Your task to perform on an android device: Turn off the flashlight Image 0: 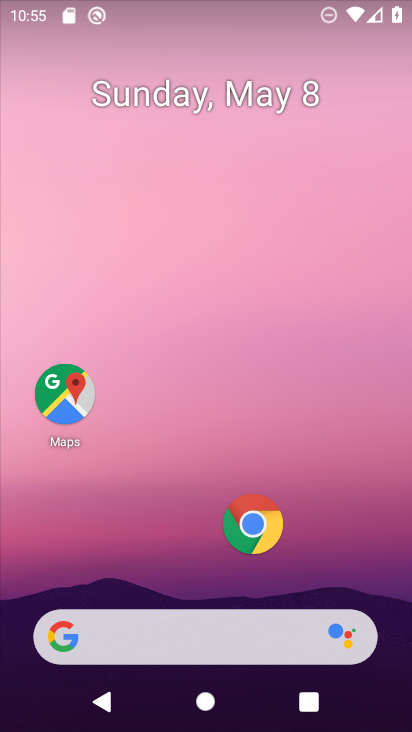
Step 0: drag from (196, 413) to (197, 0)
Your task to perform on an android device: Turn off the flashlight Image 1: 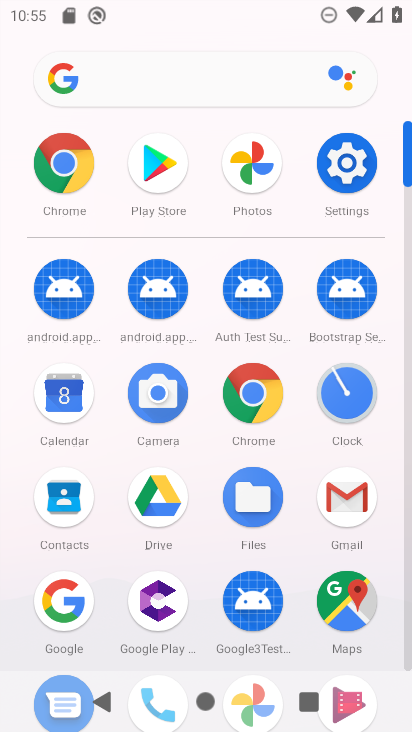
Step 1: click (345, 165)
Your task to perform on an android device: Turn off the flashlight Image 2: 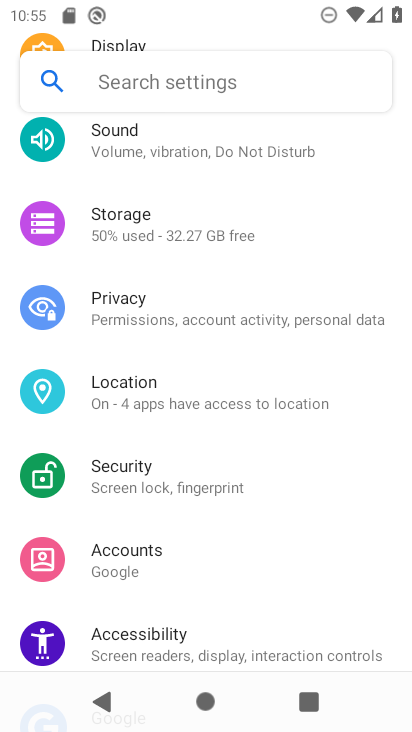
Step 2: click (273, 78)
Your task to perform on an android device: Turn off the flashlight Image 3: 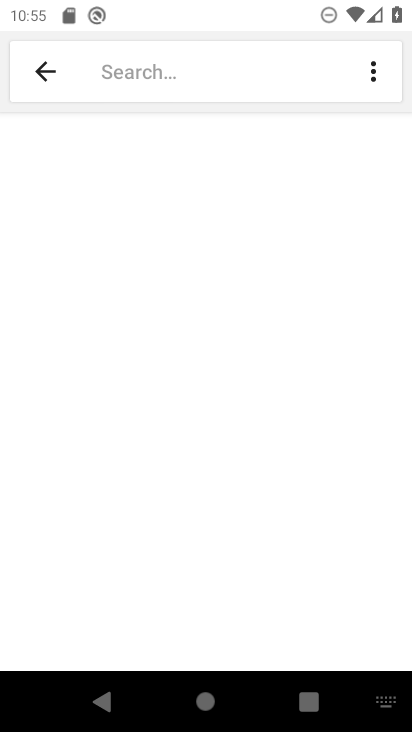
Step 3: type "flashlight"
Your task to perform on an android device: Turn off the flashlight Image 4: 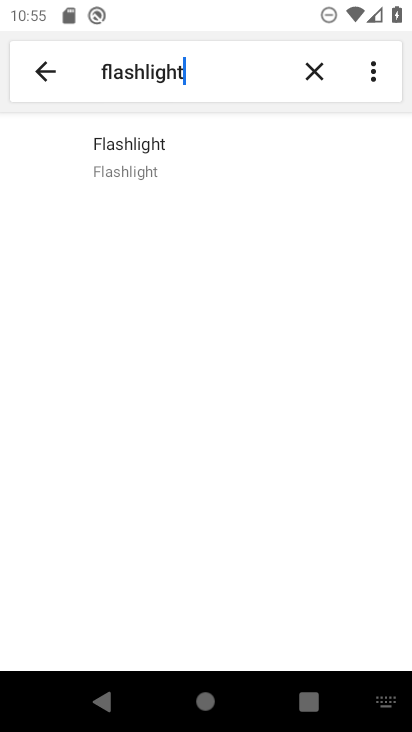
Step 4: click (126, 168)
Your task to perform on an android device: Turn off the flashlight Image 5: 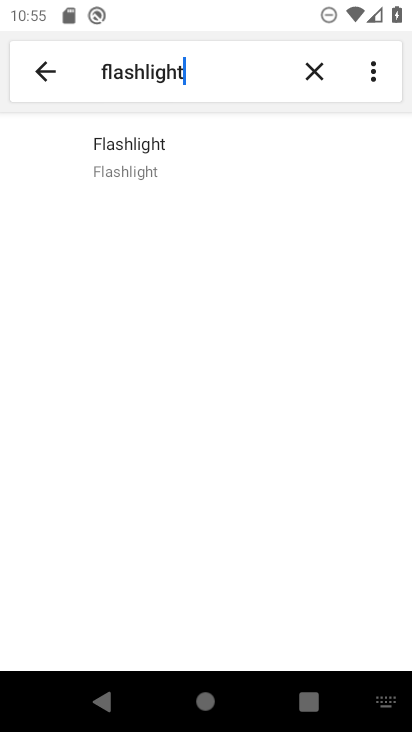
Step 5: task complete